Your task to perform on an android device: Google the capital of Uruguay Image 0: 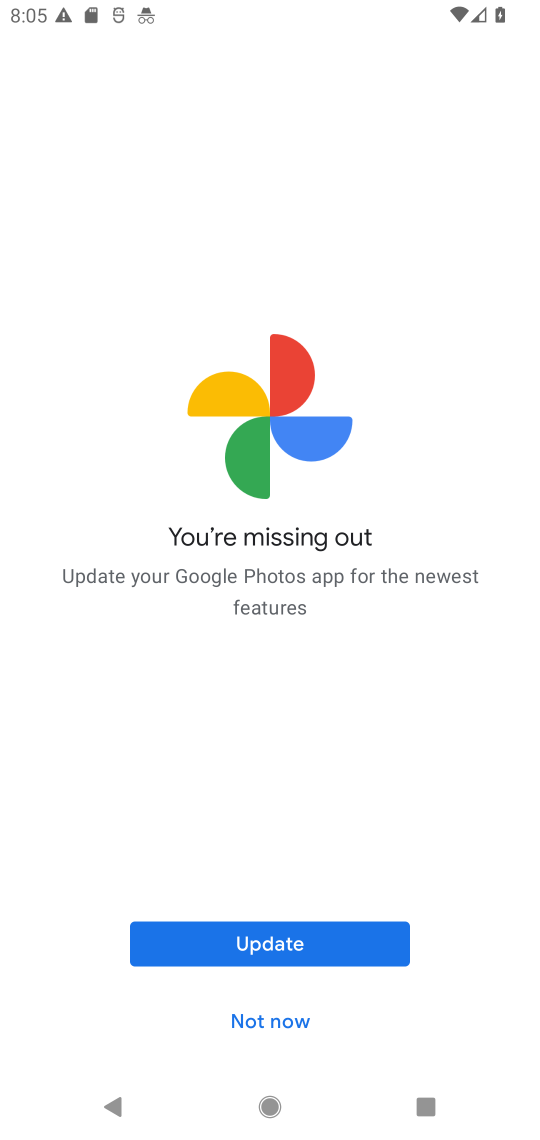
Step 0: press home button
Your task to perform on an android device: Google the capital of Uruguay Image 1: 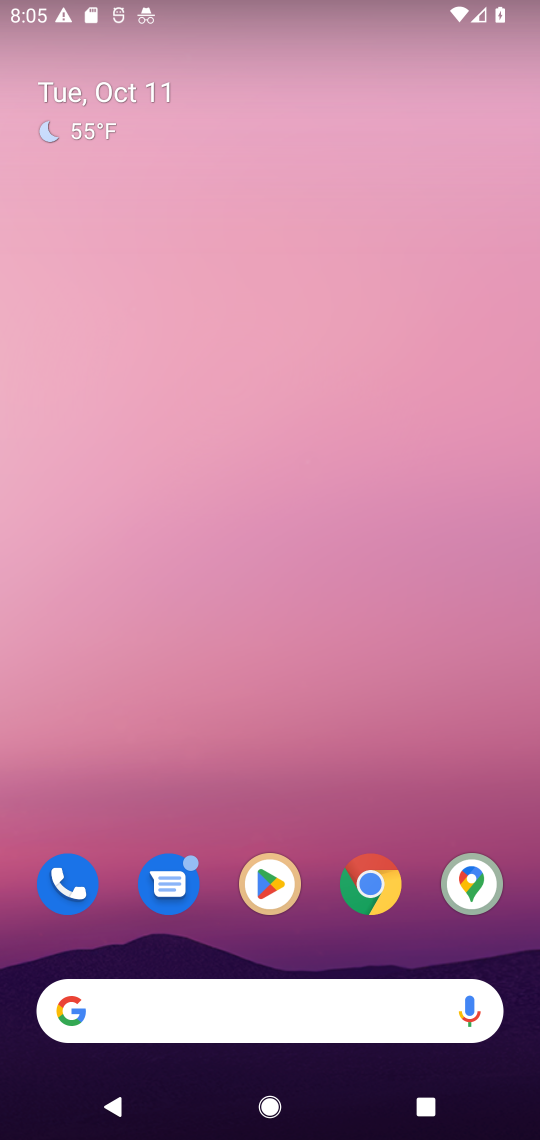
Step 1: drag from (308, 916) to (338, 108)
Your task to perform on an android device: Google the capital of Uruguay Image 2: 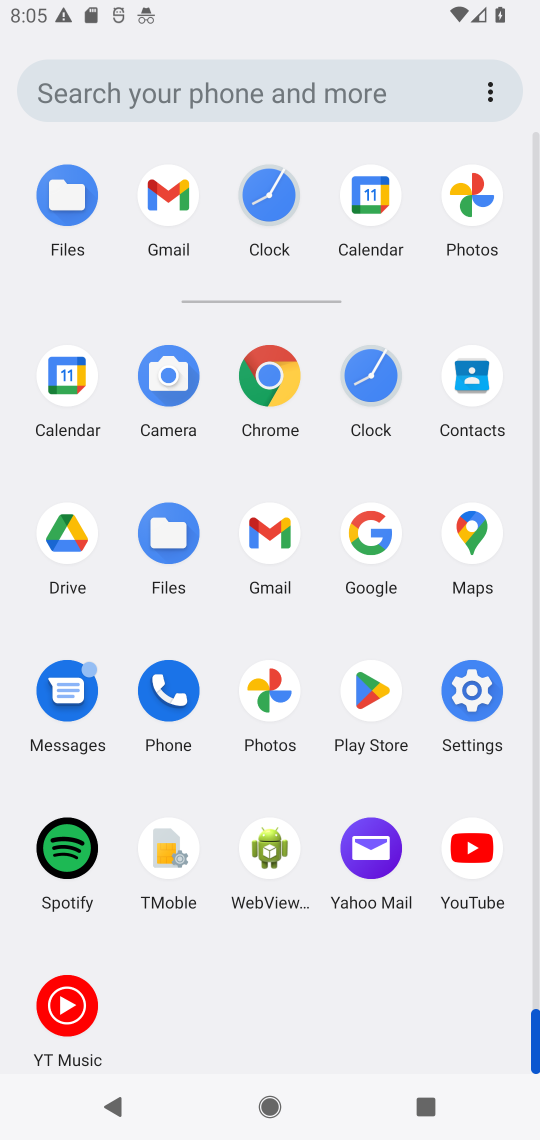
Step 2: click (369, 528)
Your task to perform on an android device: Google the capital of Uruguay Image 3: 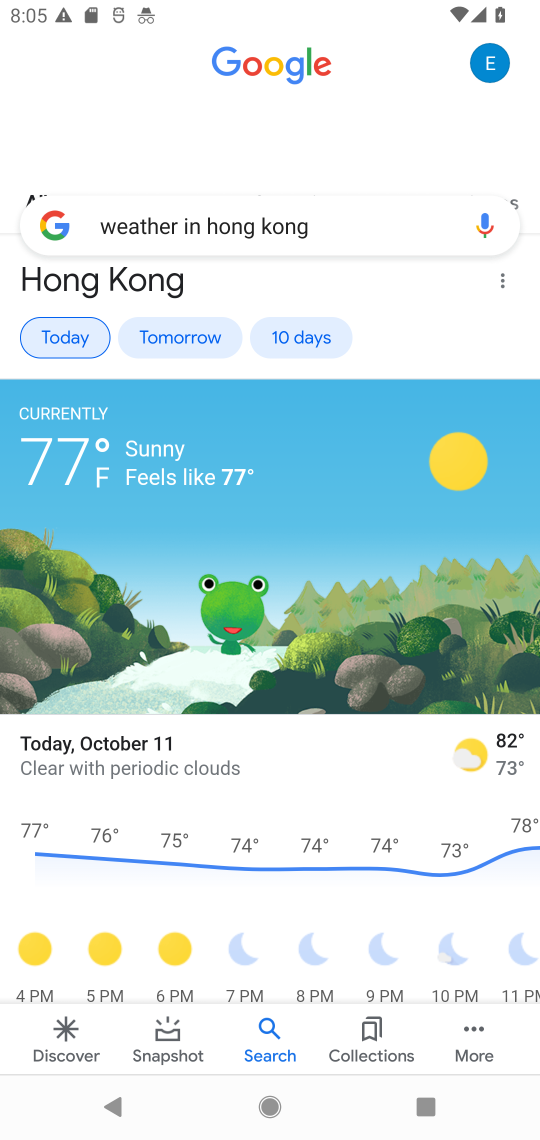
Step 3: click (345, 223)
Your task to perform on an android device: Google the capital of Uruguay Image 4: 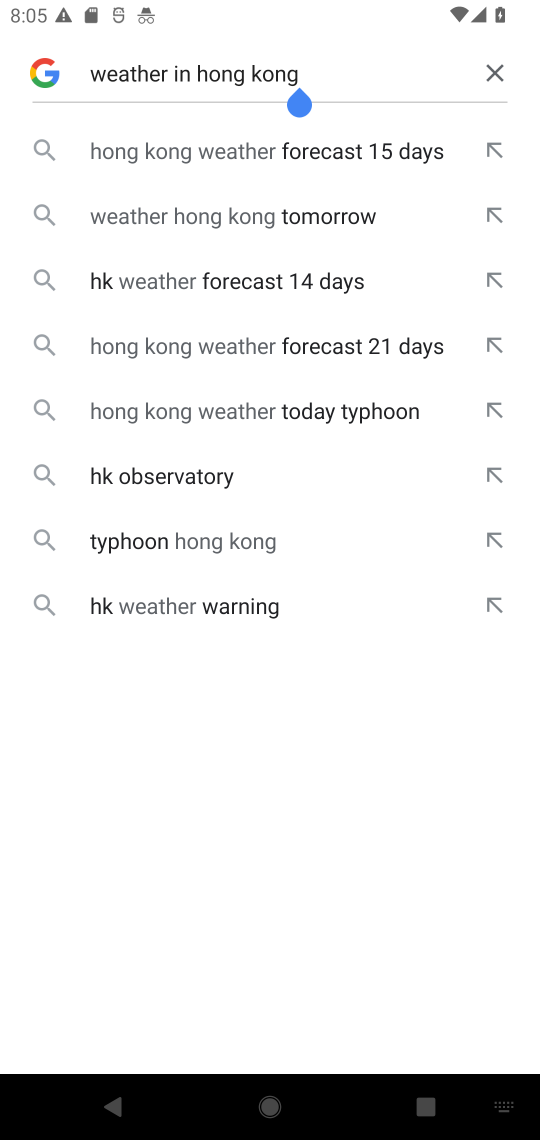
Step 4: click (492, 67)
Your task to perform on an android device: Google the capital of Uruguay Image 5: 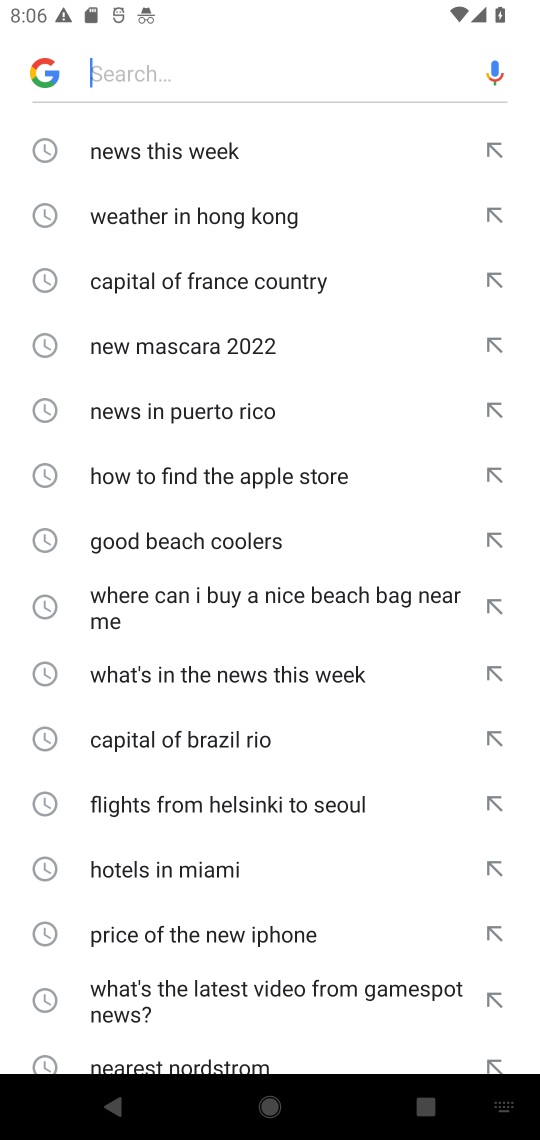
Step 5: type " capital of Uruguay"
Your task to perform on an android device: Google the capital of Uruguay Image 6: 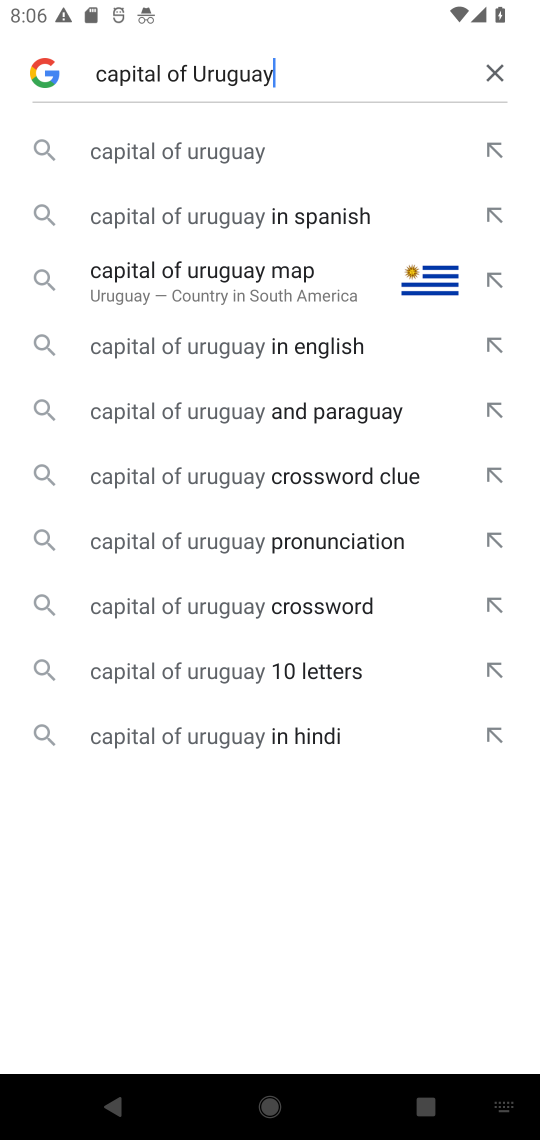
Step 6: click (182, 142)
Your task to perform on an android device: Google the capital of Uruguay Image 7: 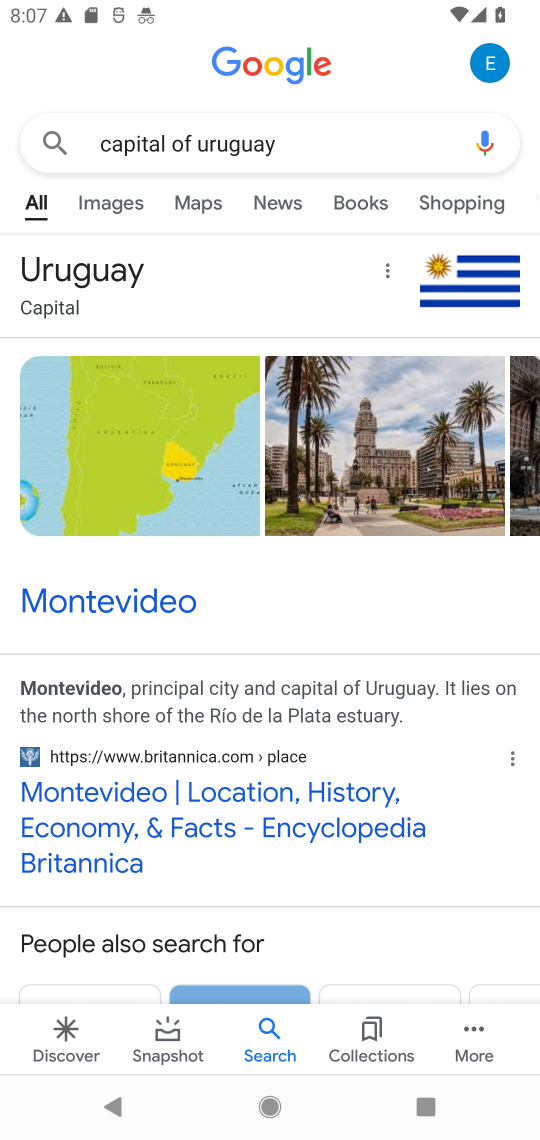
Step 7: task complete